Your task to perform on an android device: turn vacation reply on in the gmail app Image 0: 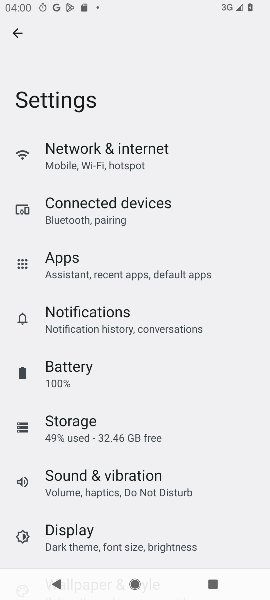
Step 0: press home button
Your task to perform on an android device: turn vacation reply on in the gmail app Image 1: 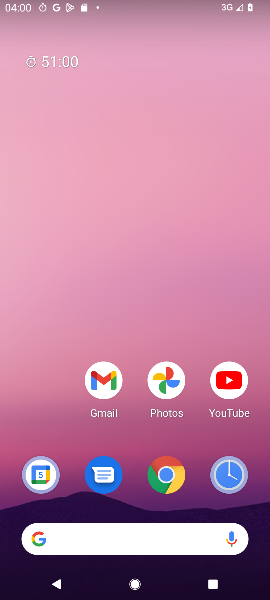
Step 1: drag from (60, 431) to (62, 127)
Your task to perform on an android device: turn vacation reply on in the gmail app Image 2: 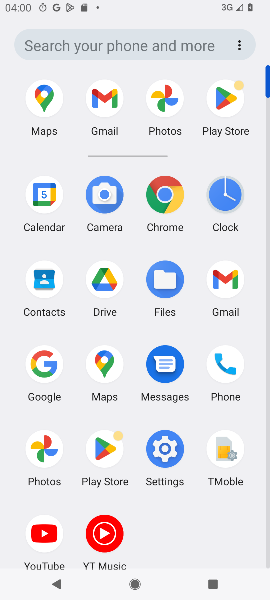
Step 2: click (229, 284)
Your task to perform on an android device: turn vacation reply on in the gmail app Image 3: 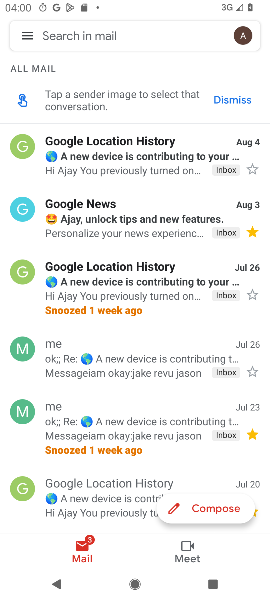
Step 3: click (26, 36)
Your task to perform on an android device: turn vacation reply on in the gmail app Image 4: 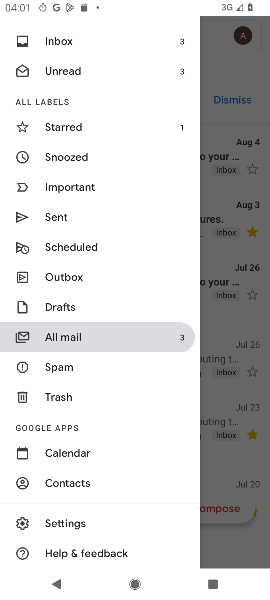
Step 4: click (76, 532)
Your task to perform on an android device: turn vacation reply on in the gmail app Image 5: 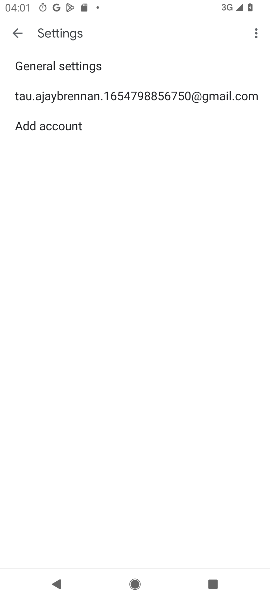
Step 5: click (88, 93)
Your task to perform on an android device: turn vacation reply on in the gmail app Image 6: 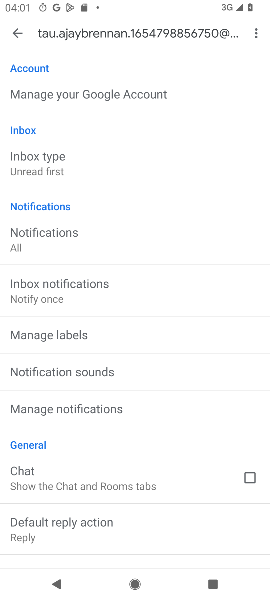
Step 6: drag from (181, 371) to (184, 300)
Your task to perform on an android device: turn vacation reply on in the gmail app Image 7: 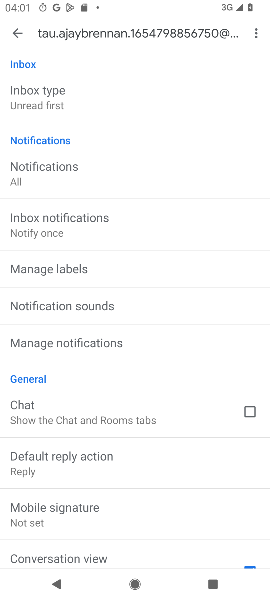
Step 7: drag from (186, 418) to (204, 324)
Your task to perform on an android device: turn vacation reply on in the gmail app Image 8: 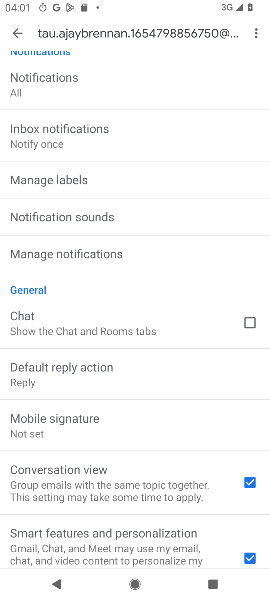
Step 8: drag from (191, 433) to (193, 338)
Your task to perform on an android device: turn vacation reply on in the gmail app Image 9: 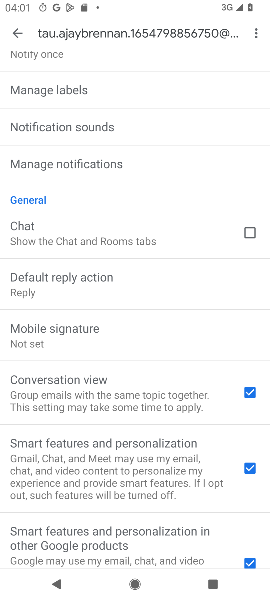
Step 9: drag from (170, 451) to (162, 335)
Your task to perform on an android device: turn vacation reply on in the gmail app Image 10: 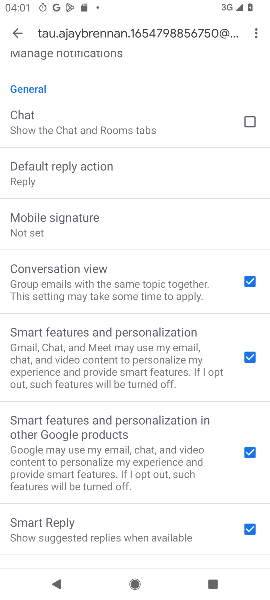
Step 10: drag from (151, 503) to (158, 328)
Your task to perform on an android device: turn vacation reply on in the gmail app Image 11: 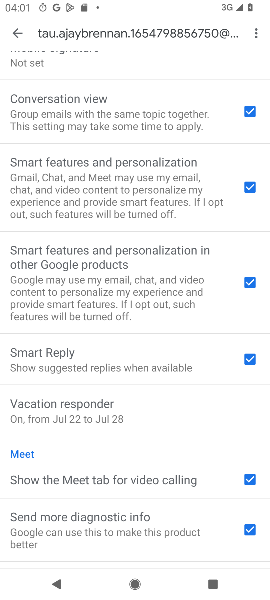
Step 11: click (113, 412)
Your task to perform on an android device: turn vacation reply on in the gmail app Image 12: 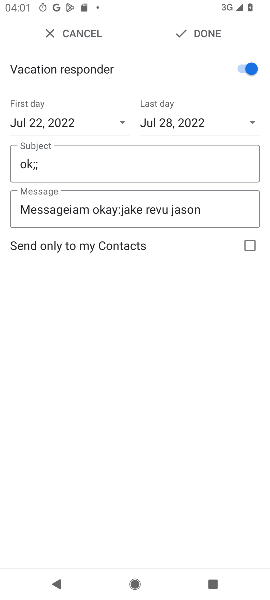
Step 12: task complete